Your task to perform on an android device: Show me popular videos on Youtube Image 0: 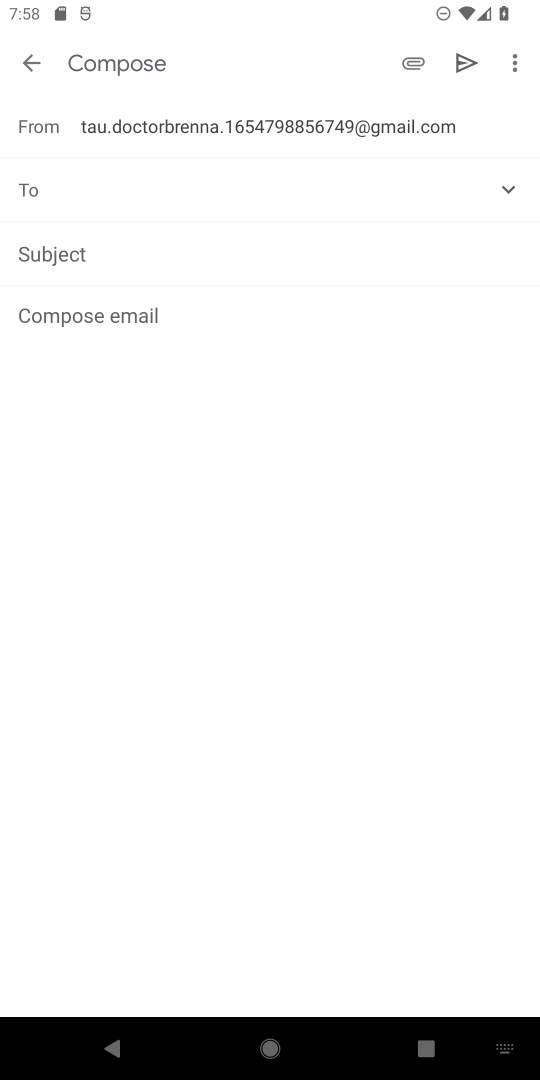
Step 0: press home button
Your task to perform on an android device: Show me popular videos on Youtube Image 1: 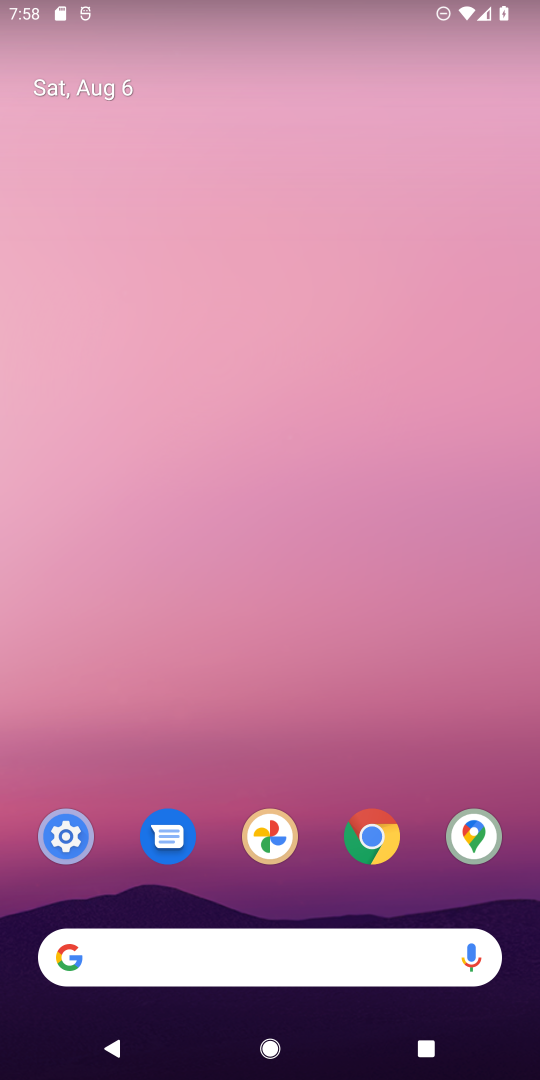
Step 1: drag from (236, 926) to (202, 545)
Your task to perform on an android device: Show me popular videos on Youtube Image 2: 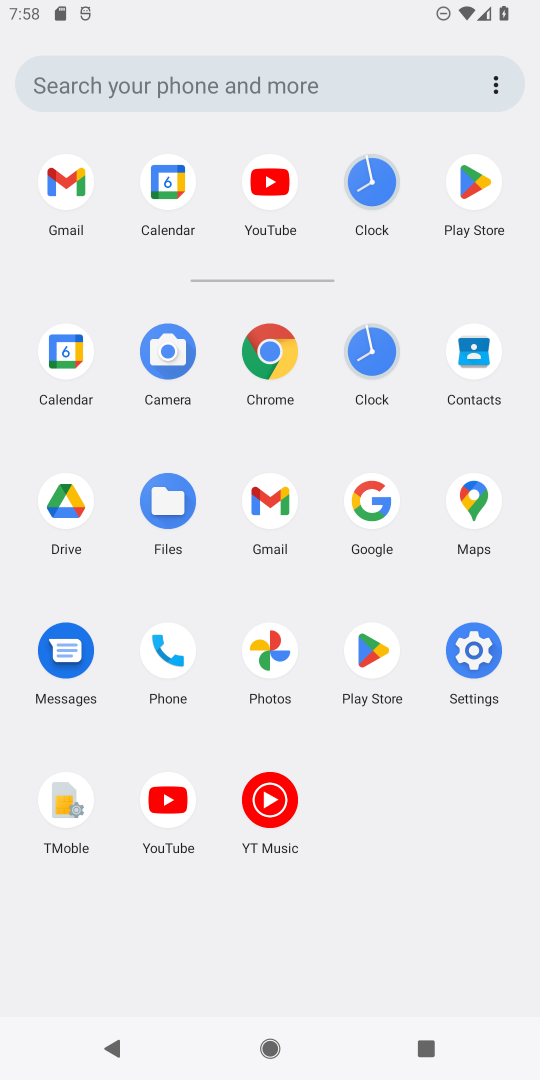
Step 2: click (162, 810)
Your task to perform on an android device: Show me popular videos on Youtube Image 3: 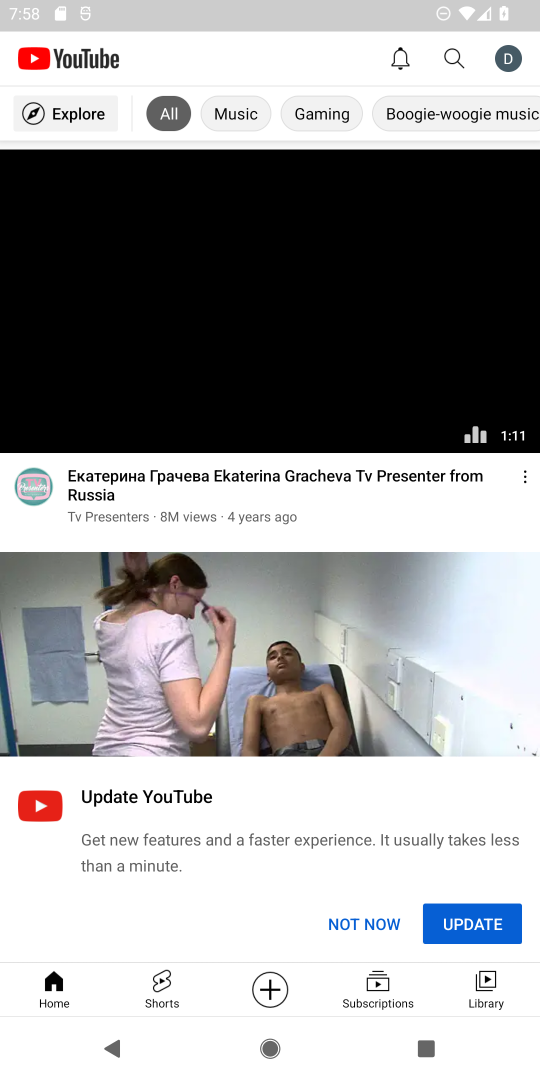
Step 3: click (441, 60)
Your task to perform on an android device: Show me popular videos on Youtube Image 4: 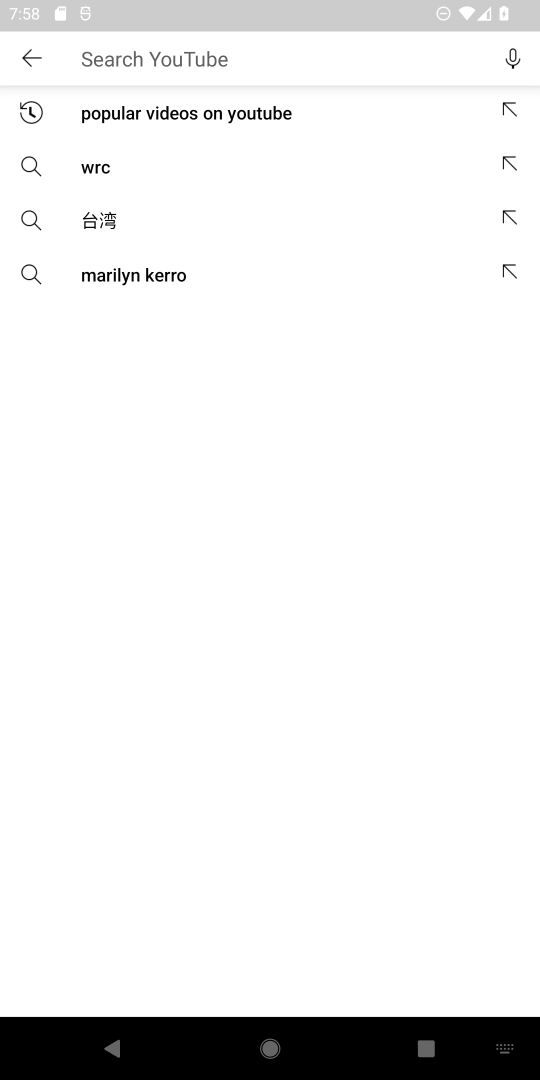
Step 4: click (244, 112)
Your task to perform on an android device: Show me popular videos on Youtube Image 5: 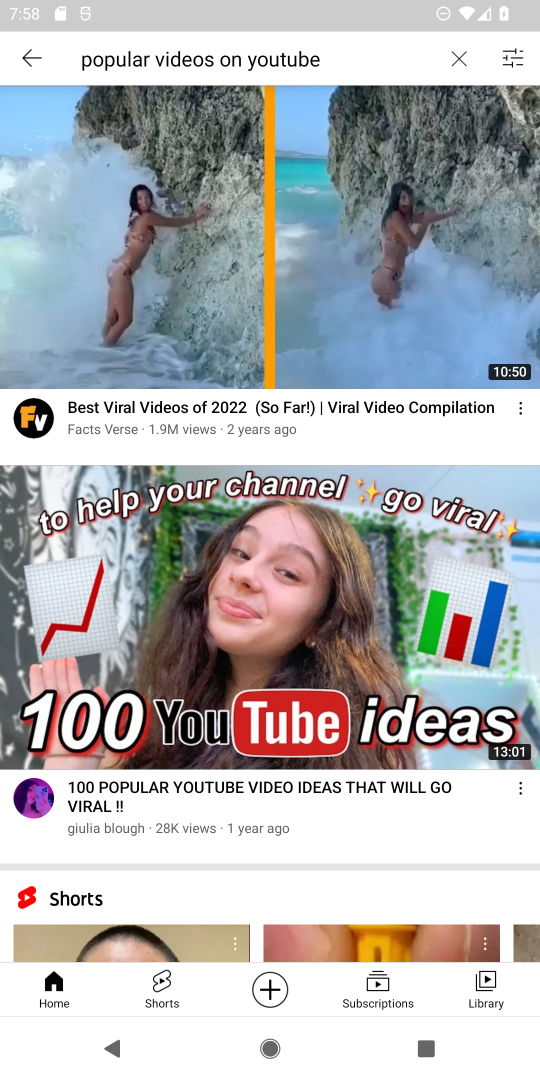
Step 5: click (169, 556)
Your task to perform on an android device: Show me popular videos on Youtube Image 6: 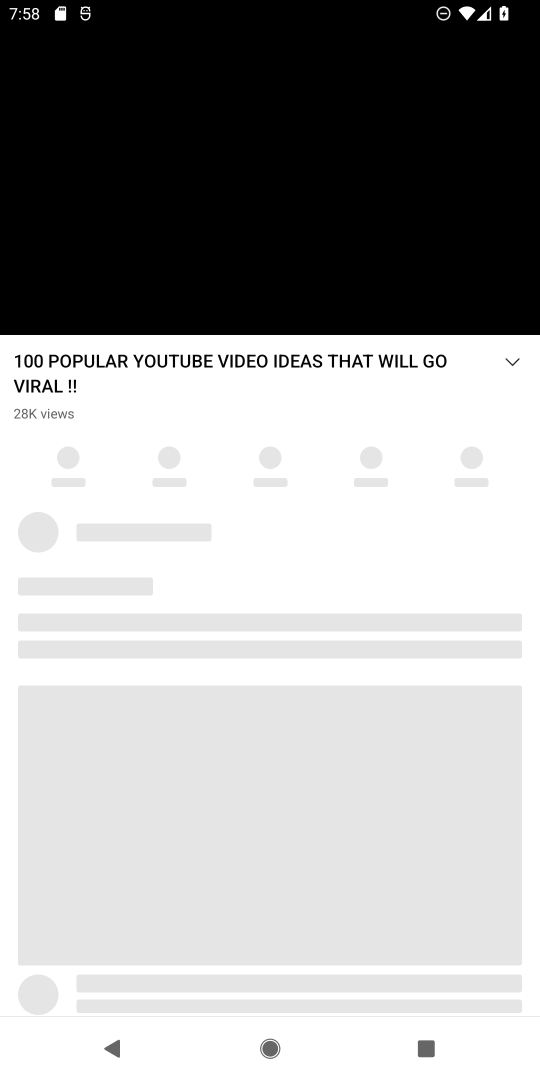
Step 6: task complete